Your task to perform on an android device: clear history in the chrome app Image 0: 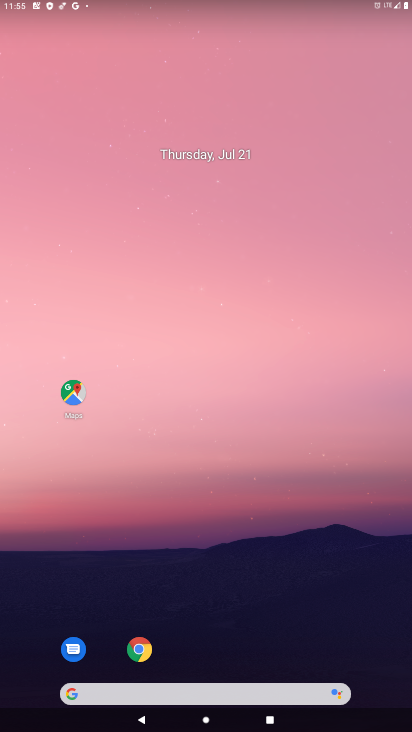
Step 0: drag from (290, 555) to (240, 30)
Your task to perform on an android device: clear history in the chrome app Image 1: 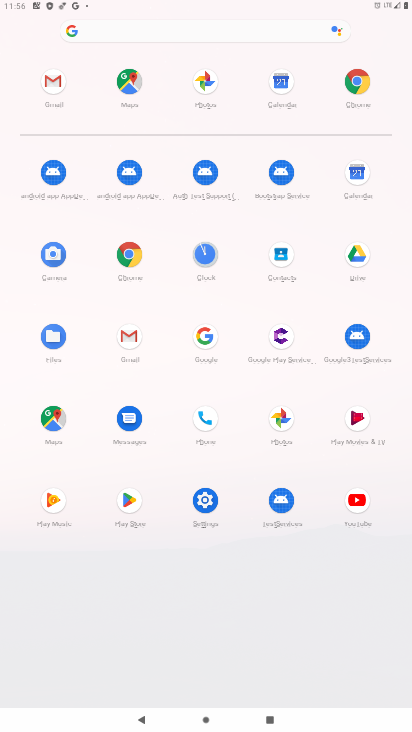
Step 1: click (358, 81)
Your task to perform on an android device: clear history in the chrome app Image 2: 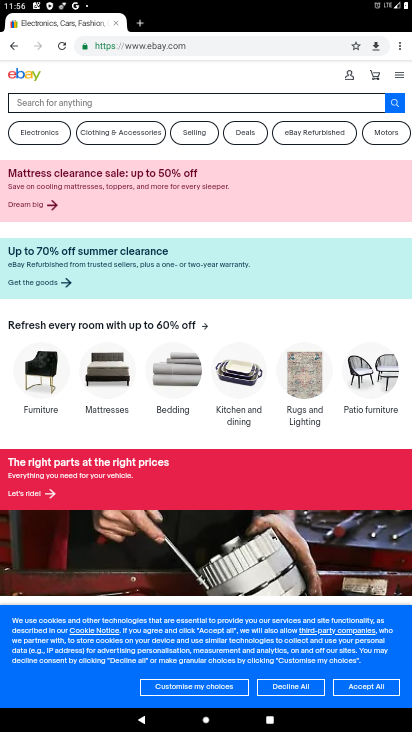
Step 2: drag from (396, 45) to (321, 178)
Your task to perform on an android device: clear history in the chrome app Image 3: 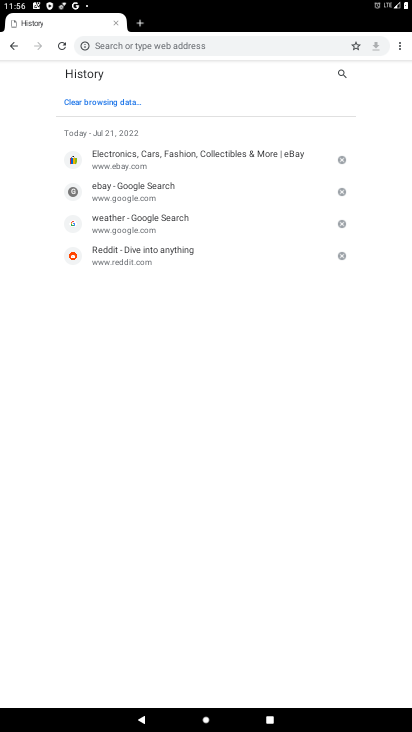
Step 3: click (105, 97)
Your task to perform on an android device: clear history in the chrome app Image 4: 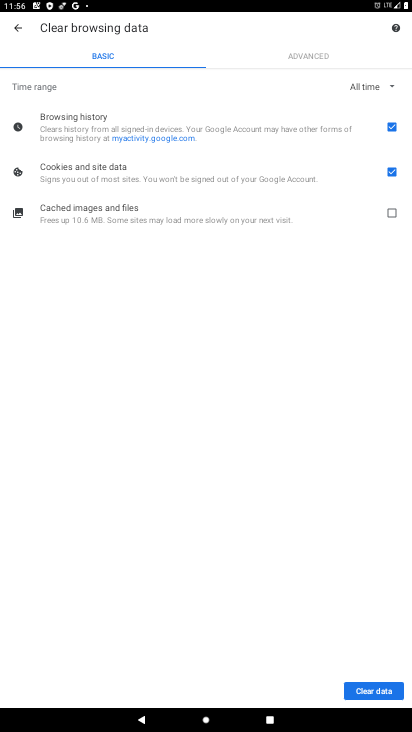
Step 4: click (382, 697)
Your task to perform on an android device: clear history in the chrome app Image 5: 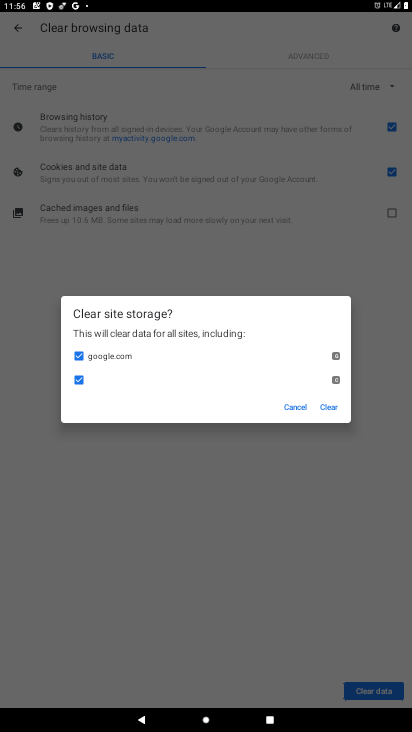
Step 5: click (328, 409)
Your task to perform on an android device: clear history in the chrome app Image 6: 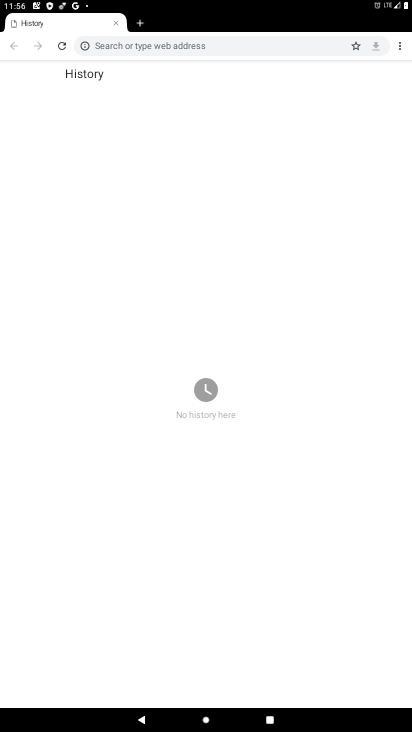
Step 6: task complete